Your task to perform on an android device: clear history in the chrome app Image 0: 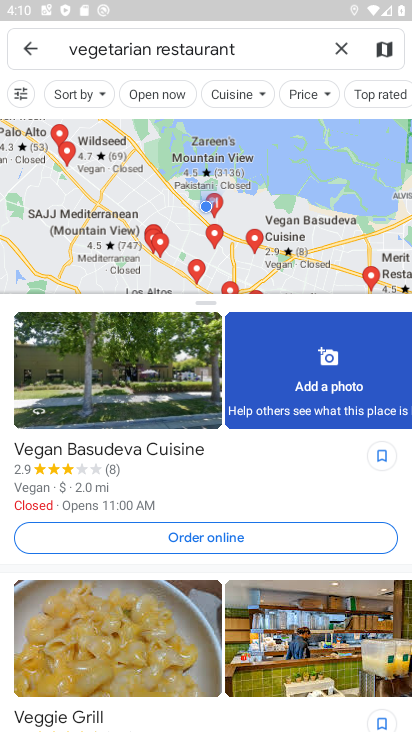
Step 0: press home button
Your task to perform on an android device: clear history in the chrome app Image 1: 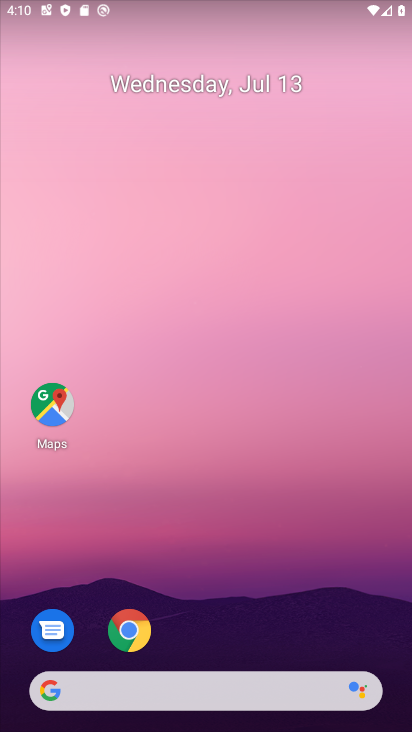
Step 1: click (275, 245)
Your task to perform on an android device: clear history in the chrome app Image 2: 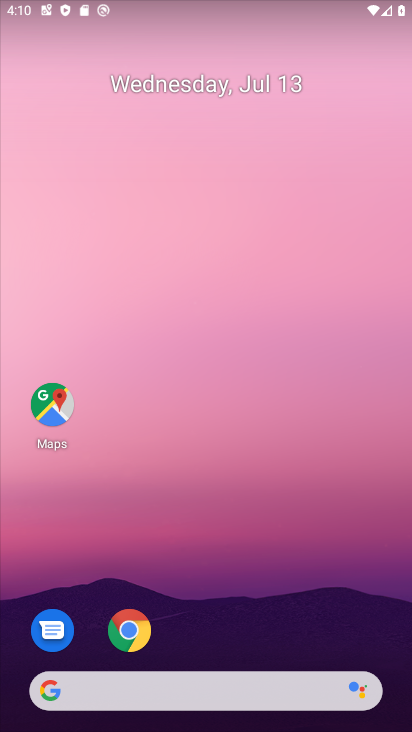
Step 2: drag from (198, 602) to (245, 133)
Your task to perform on an android device: clear history in the chrome app Image 3: 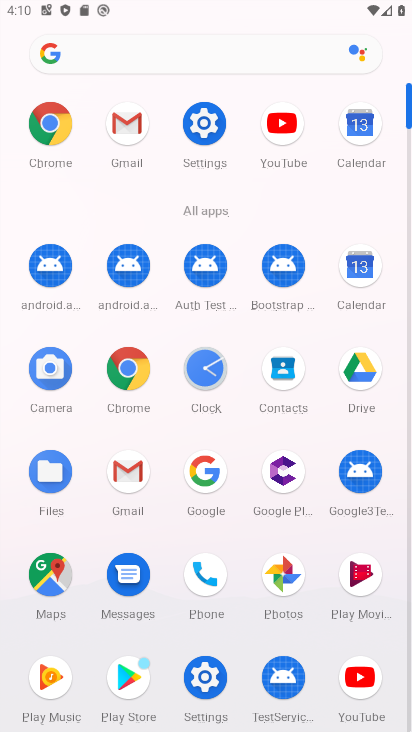
Step 3: click (131, 364)
Your task to perform on an android device: clear history in the chrome app Image 4: 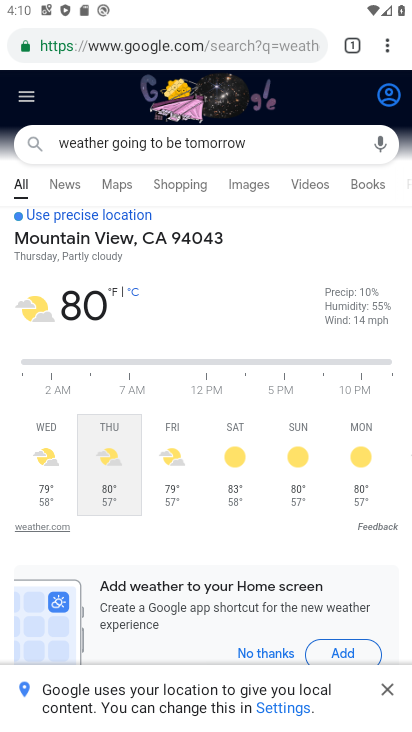
Step 4: click (381, 40)
Your task to perform on an android device: clear history in the chrome app Image 5: 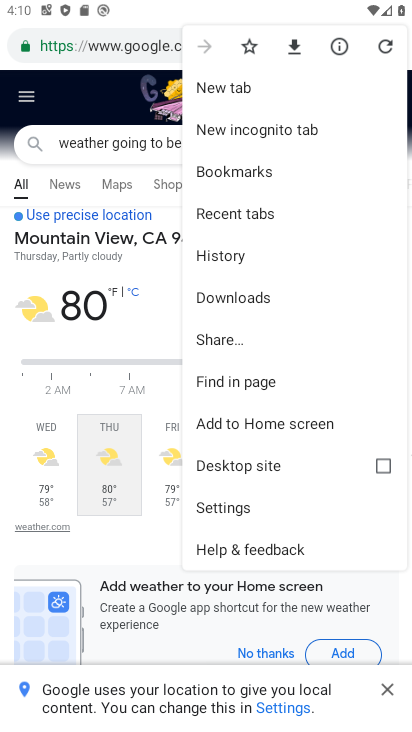
Step 5: click (248, 501)
Your task to perform on an android device: clear history in the chrome app Image 6: 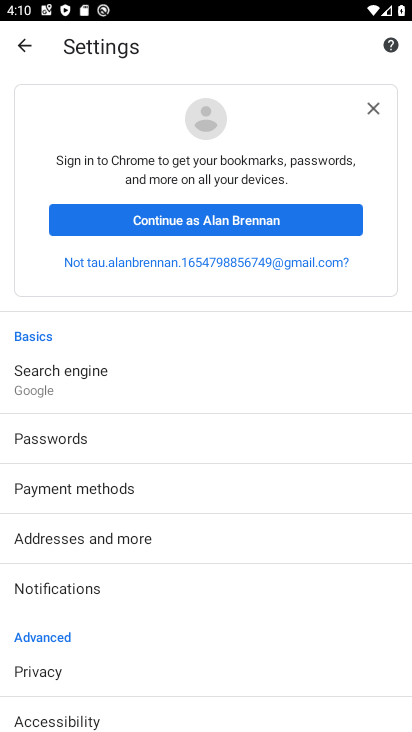
Step 6: drag from (126, 668) to (171, 256)
Your task to perform on an android device: clear history in the chrome app Image 7: 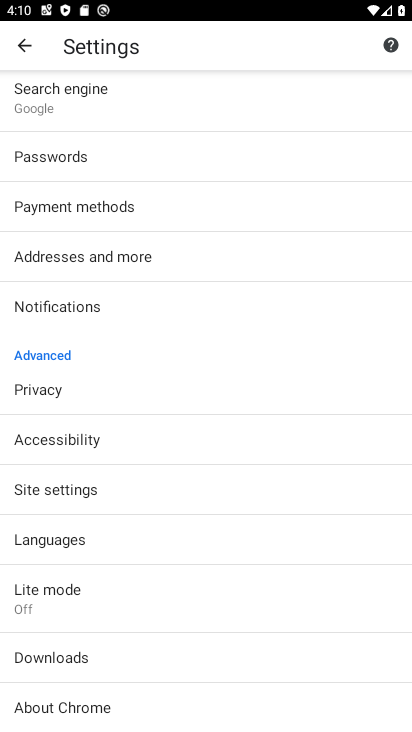
Step 7: click (79, 399)
Your task to perform on an android device: clear history in the chrome app Image 8: 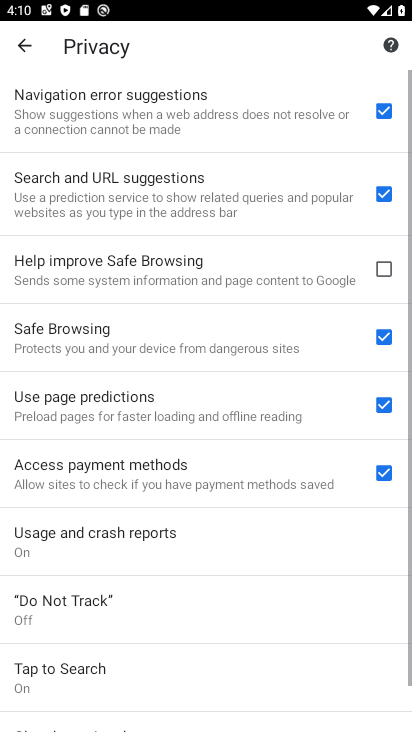
Step 8: drag from (81, 668) to (142, 254)
Your task to perform on an android device: clear history in the chrome app Image 9: 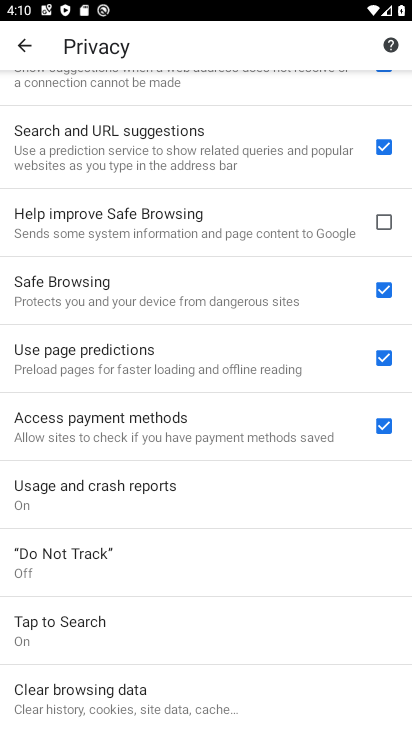
Step 9: click (163, 710)
Your task to perform on an android device: clear history in the chrome app Image 10: 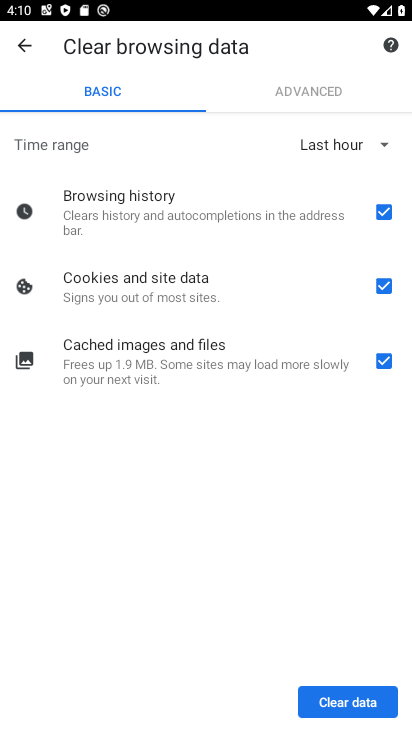
Step 10: click (354, 708)
Your task to perform on an android device: clear history in the chrome app Image 11: 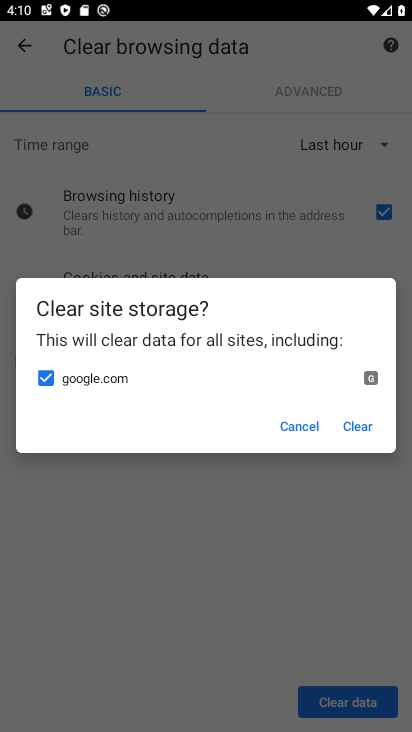
Step 11: click (367, 432)
Your task to perform on an android device: clear history in the chrome app Image 12: 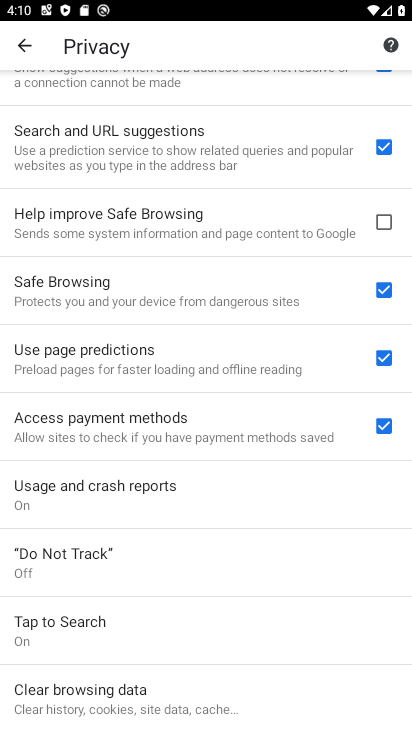
Step 12: task complete